Your task to perform on an android device: Go to CNN.com Image 0: 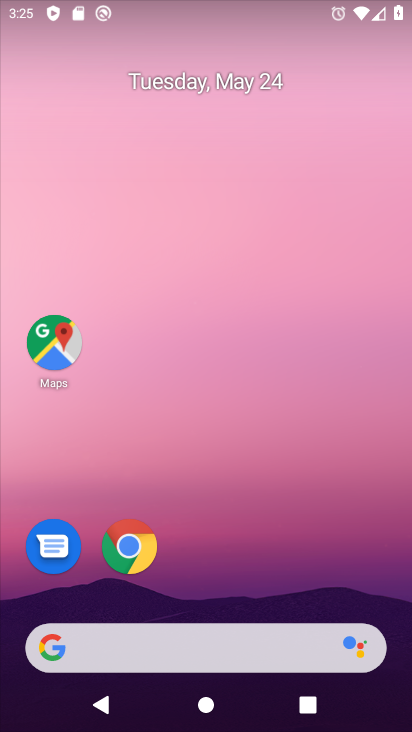
Step 0: drag from (221, 609) to (273, 257)
Your task to perform on an android device: Go to CNN.com Image 1: 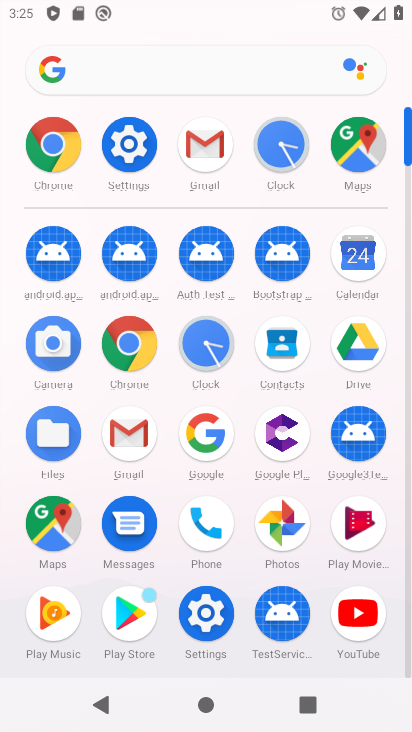
Step 1: click (60, 146)
Your task to perform on an android device: Go to CNN.com Image 2: 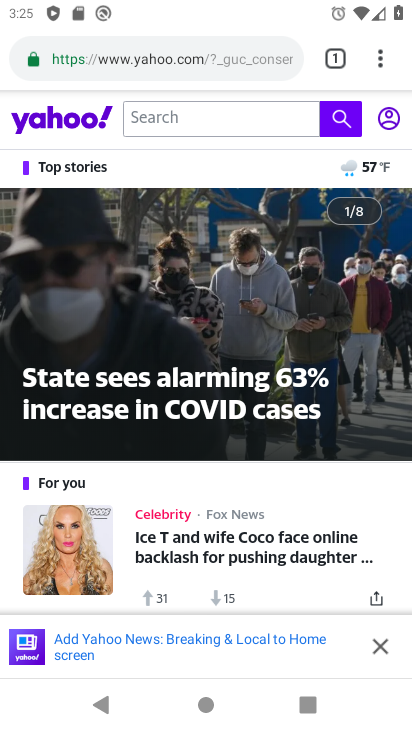
Step 2: drag from (378, 57) to (162, 121)
Your task to perform on an android device: Go to CNN.com Image 3: 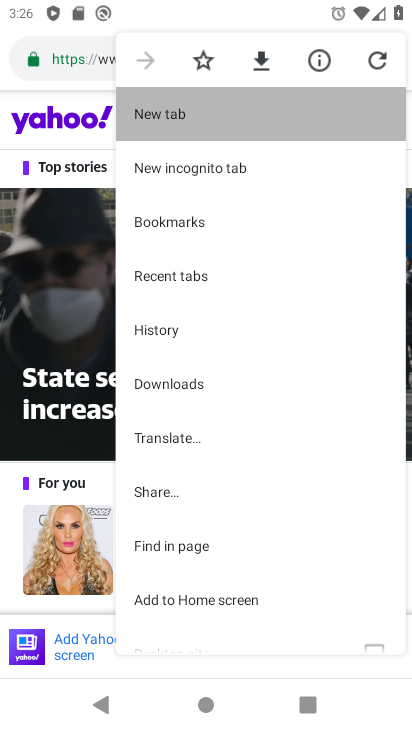
Step 3: click (162, 121)
Your task to perform on an android device: Go to CNN.com Image 4: 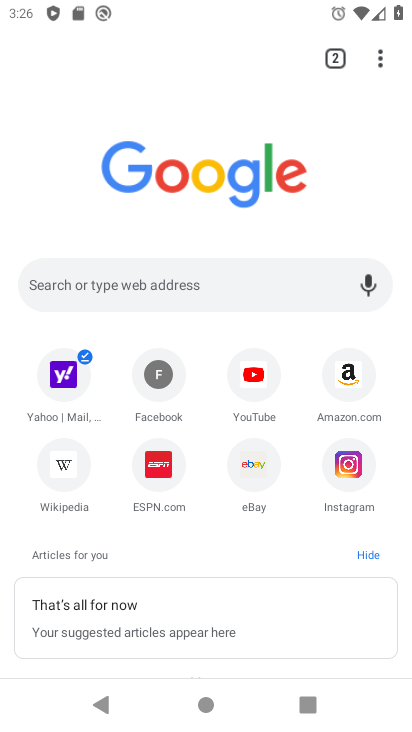
Step 4: click (58, 278)
Your task to perform on an android device: Go to CNN.com Image 5: 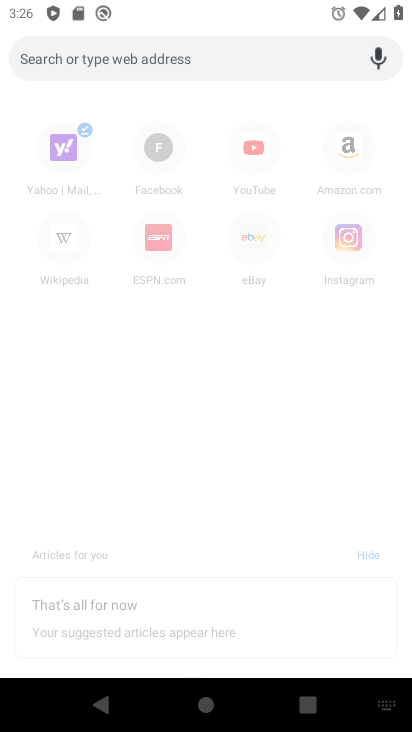
Step 5: type "cnn.com"
Your task to perform on an android device: Go to CNN.com Image 6: 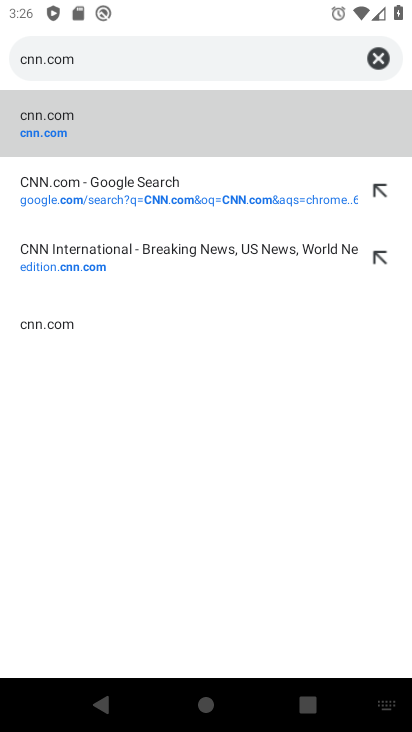
Step 6: click (33, 129)
Your task to perform on an android device: Go to CNN.com Image 7: 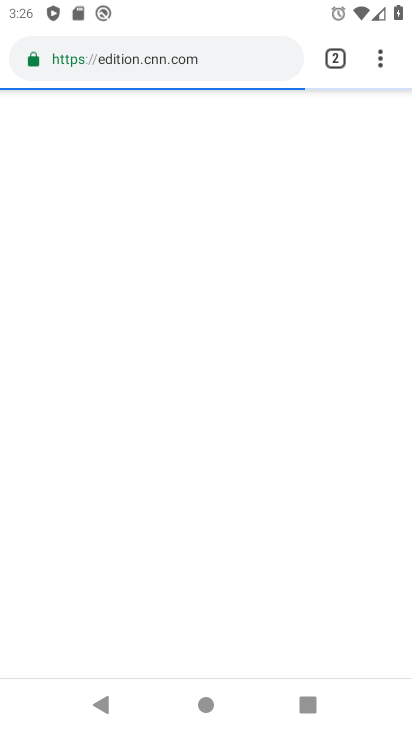
Step 7: task complete